Your task to perform on an android device: change notifications settings Image 0: 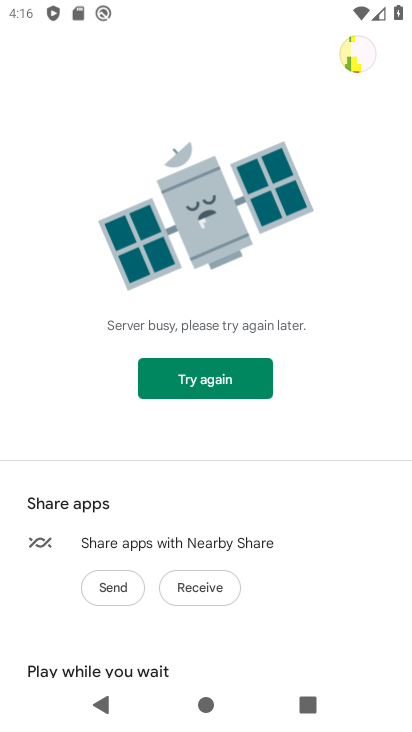
Step 0: press home button
Your task to perform on an android device: change notifications settings Image 1: 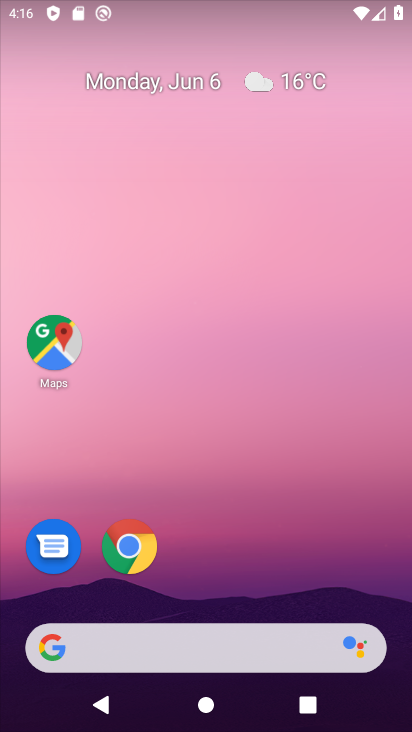
Step 1: drag from (199, 631) to (405, 24)
Your task to perform on an android device: change notifications settings Image 2: 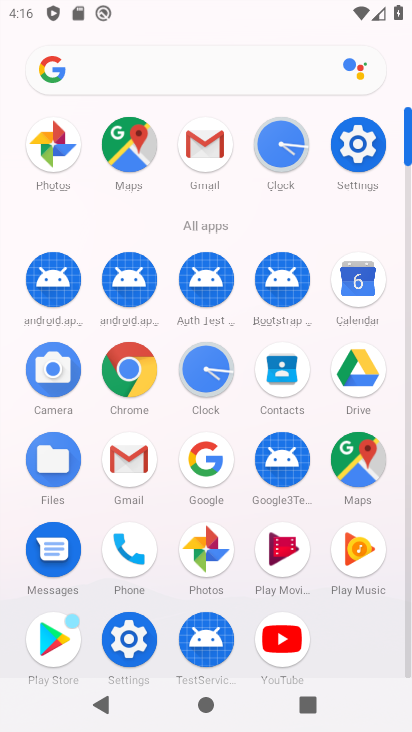
Step 2: click (341, 138)
Your task to perform on an android device: change notifications settings Image 3: 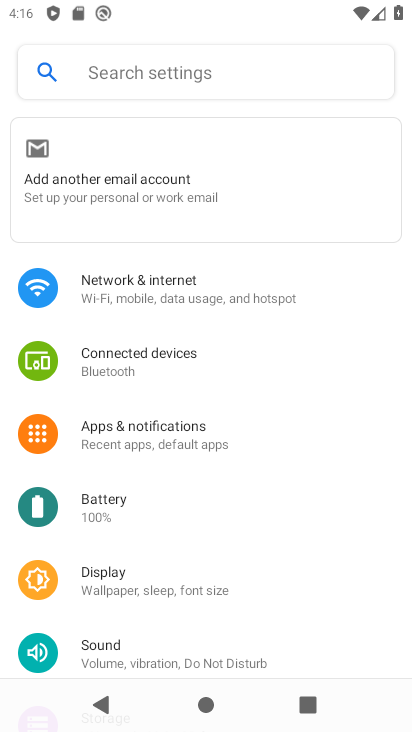
Step 3: click (209, 438)
Your task to perform on an android device: change notifications settings Image 4: 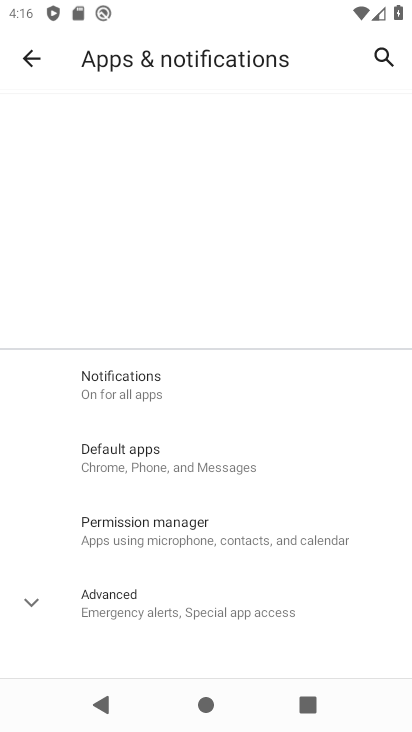
Step 4: click (146, 398)
Your task to perform on an android device: change notifications settings Image 5: 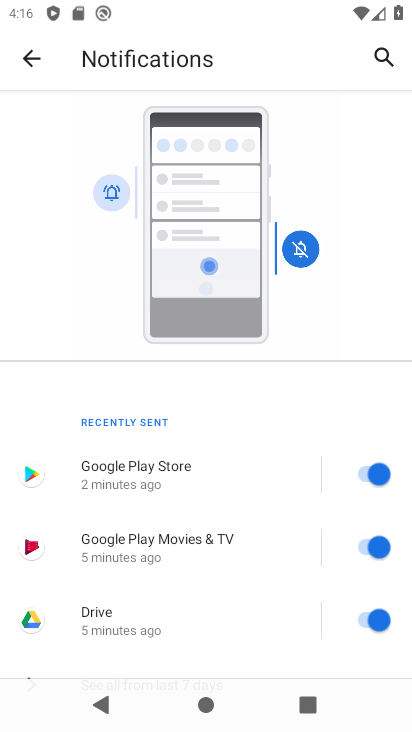
Step 5: task complete